Your task to perform on an android device: Add razer naga to the cart on target.com Image 0: 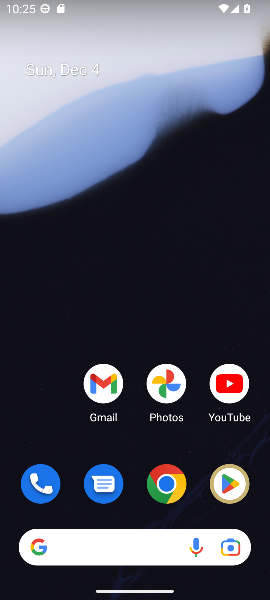
Step 0: click (172, 488)
Your task to perform on an android device: Add razer naga to the cart on target.com Image 1: 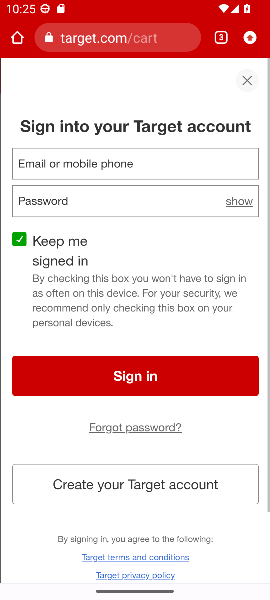
Step 1: click (247, 86)
Your task to perform on an android device: Add razer naga to the cart on target.com Image 2: 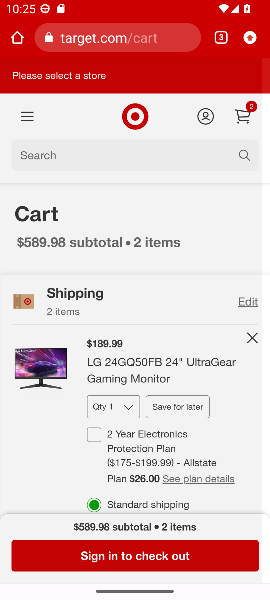
Step 2: click (51, 156)
Your task to perform on an android device: Add razer naga to the cart on target.com Image 3: 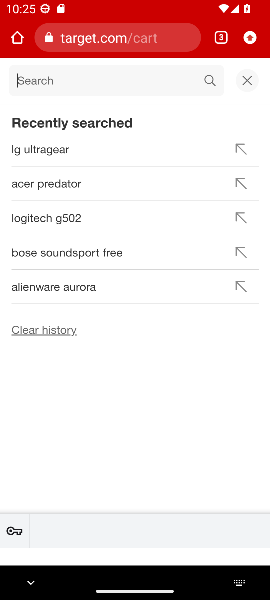
Step 3: type "razer naga"
Your task to perform on an android device: Add razer naga to the cart on target.com Image 4: 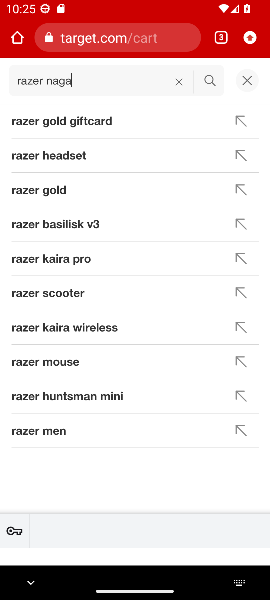
Step 4: click (213, 83)
Your task to perform on an android device: Add razer naga to the cart on target.com Image 5: 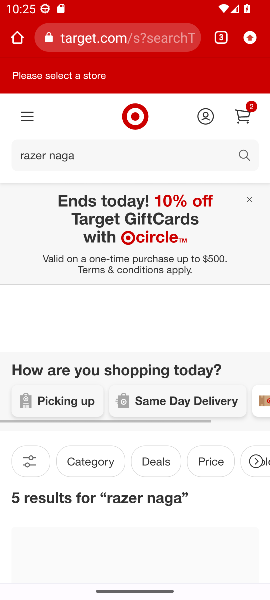
Step 5: task complete